Your task to perform on an android device: turn on wifi Image 0: 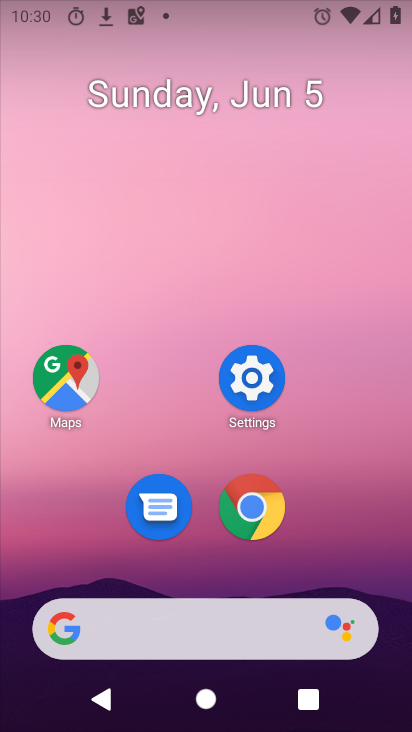
Step 0: drag from (299, 644) to (272, 197)
Your task to perform on an android device: turn on wifi Image 1: 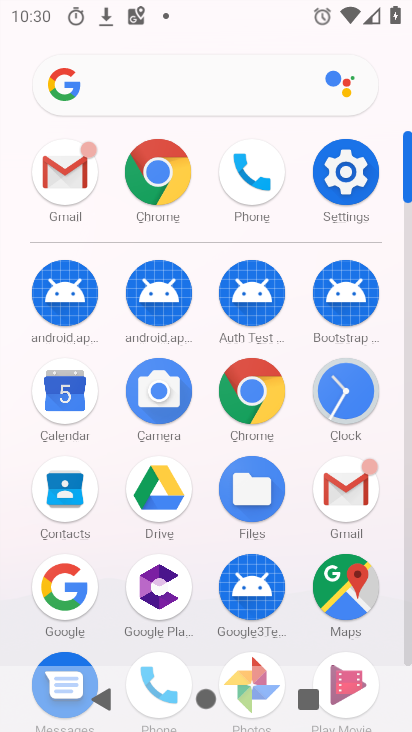
Step 1: click (345, 158)
Your task to perform on an android device: turn on wifi Image 2: 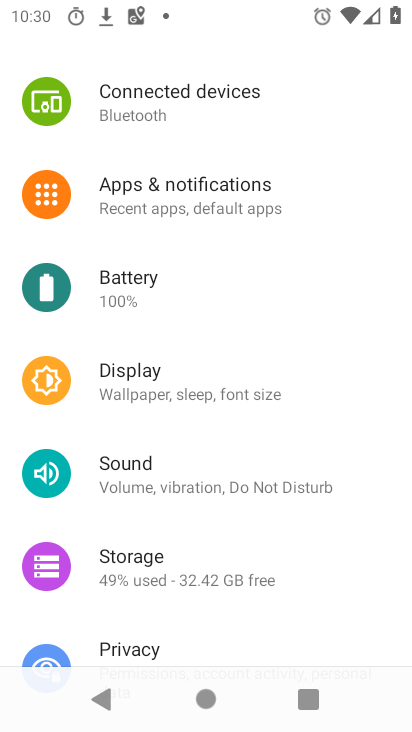
Step 2: drag from (155, 148) to (183, 321)
Your task to perform on an android device: turn on wifi Image 3: 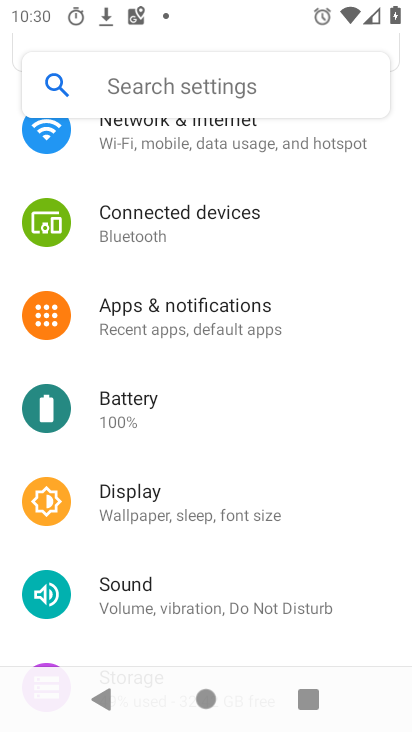
Step 3: click (158, 140)
Your task to perform on an android device: turn on wifi Image 4: 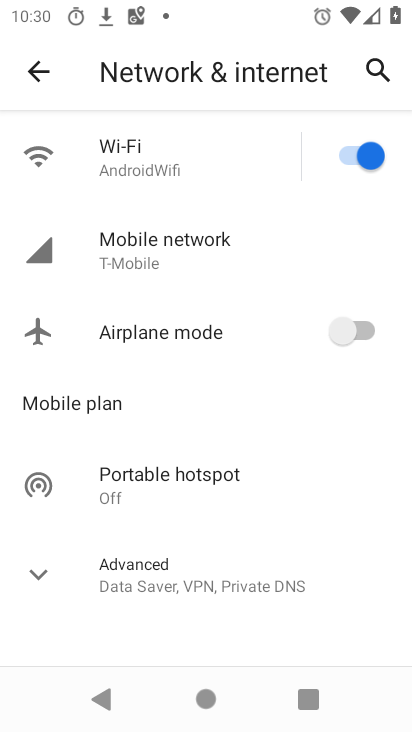
Step 4: click (176, 151)
Your task to perform on an android device: turn on wifi Image 5: 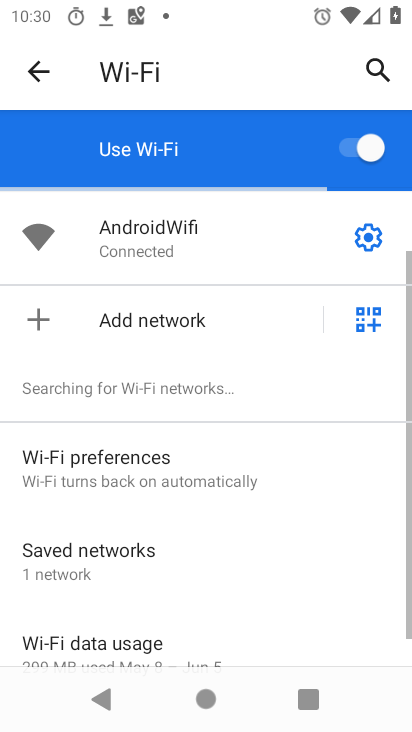
Step 5: click (351, 157)
Your task to perform on an android device: turn on wifi Image 6: 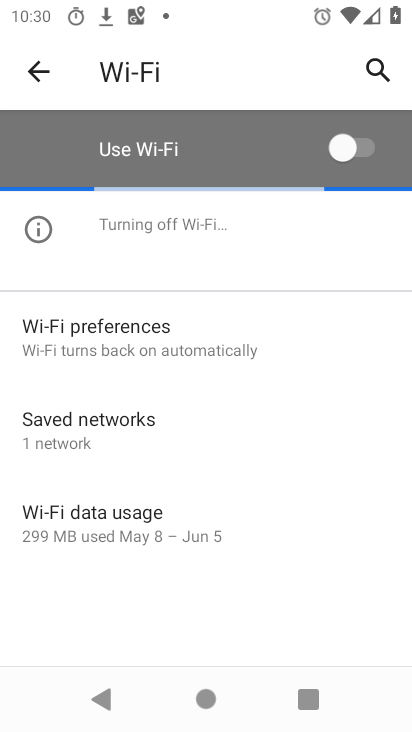
Step 6: click (337, 147)
Your task to perform on an android device: turn on wifi Image 7: 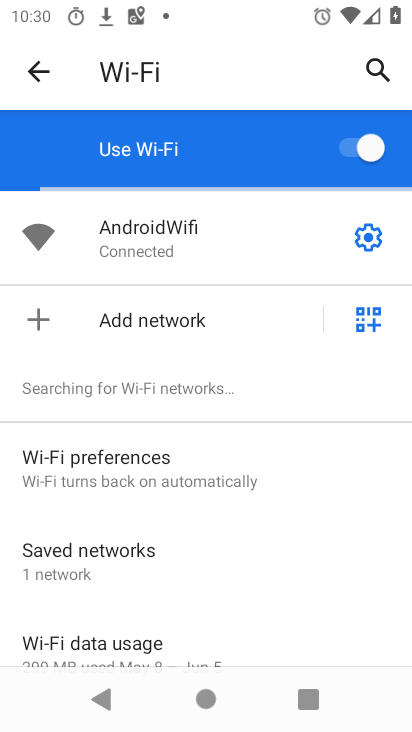
Step 7: task complete